Your task to perform on an android device: open app "Spotify: Music and Podcasts" (install if not already installed) and go to login screen Image 0: 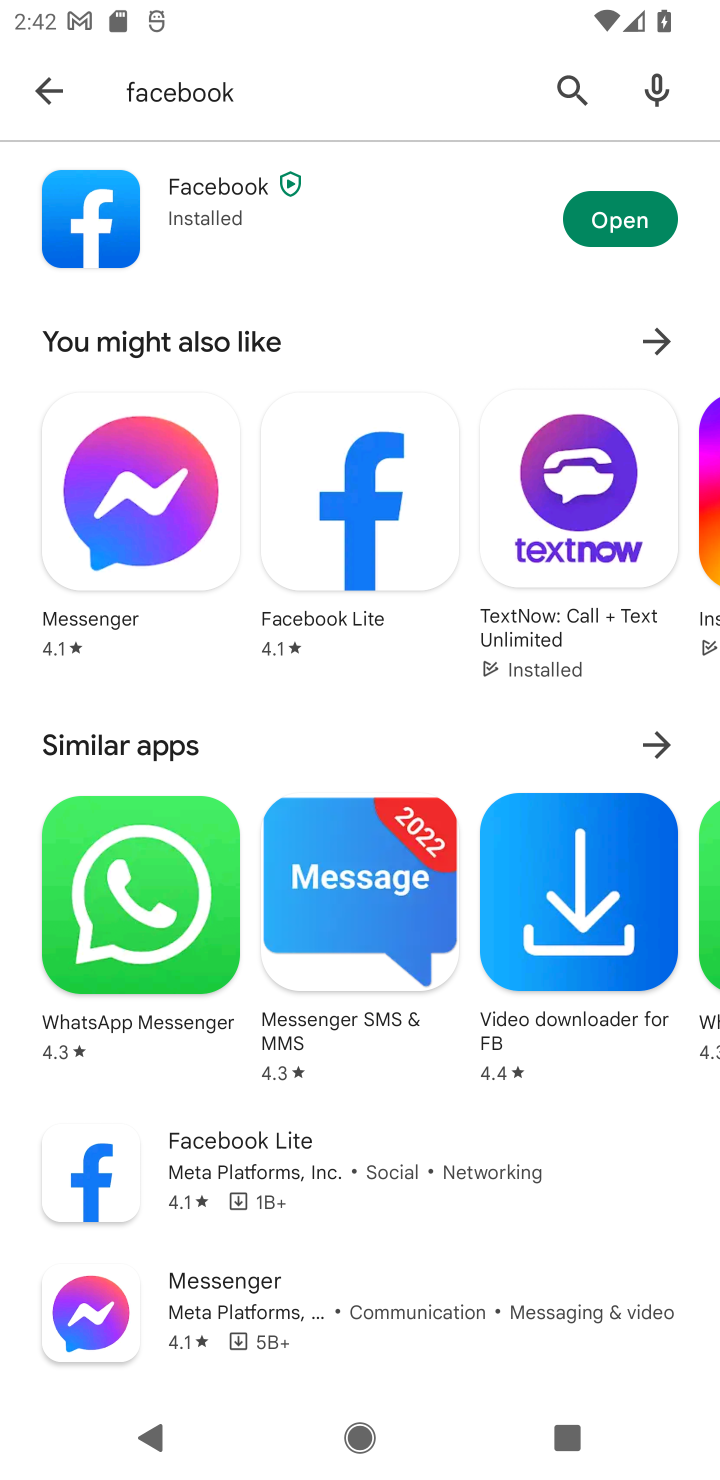
Step 0: press home button
Your task to perform on an android device: open app "Spotify: Music and Podcasts" (install if not already installed) and go to login screen Image 1: 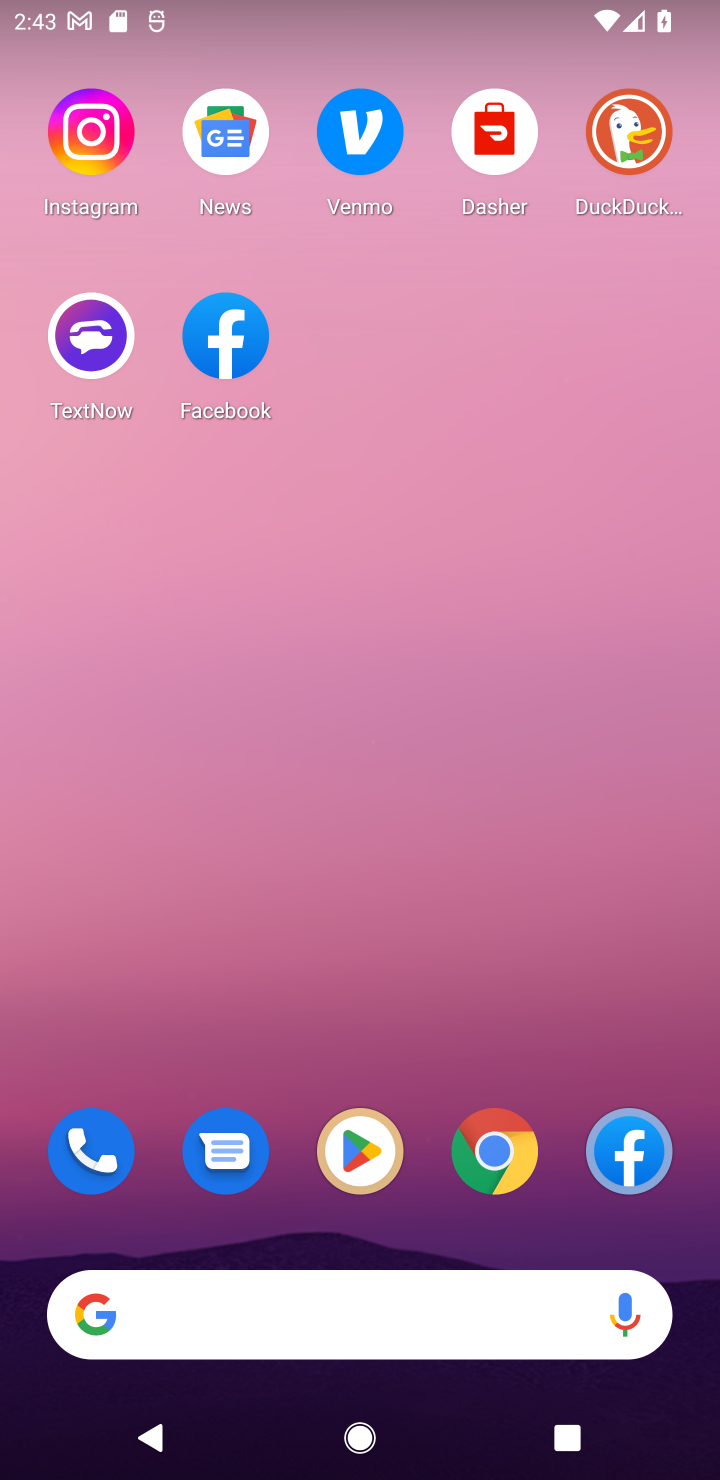
Step 1: click (356, 1156)
Your task to perform on an android device: open app "Spotify: Music and Podcasts" (install if not already installed) and go to login screen Image 2: 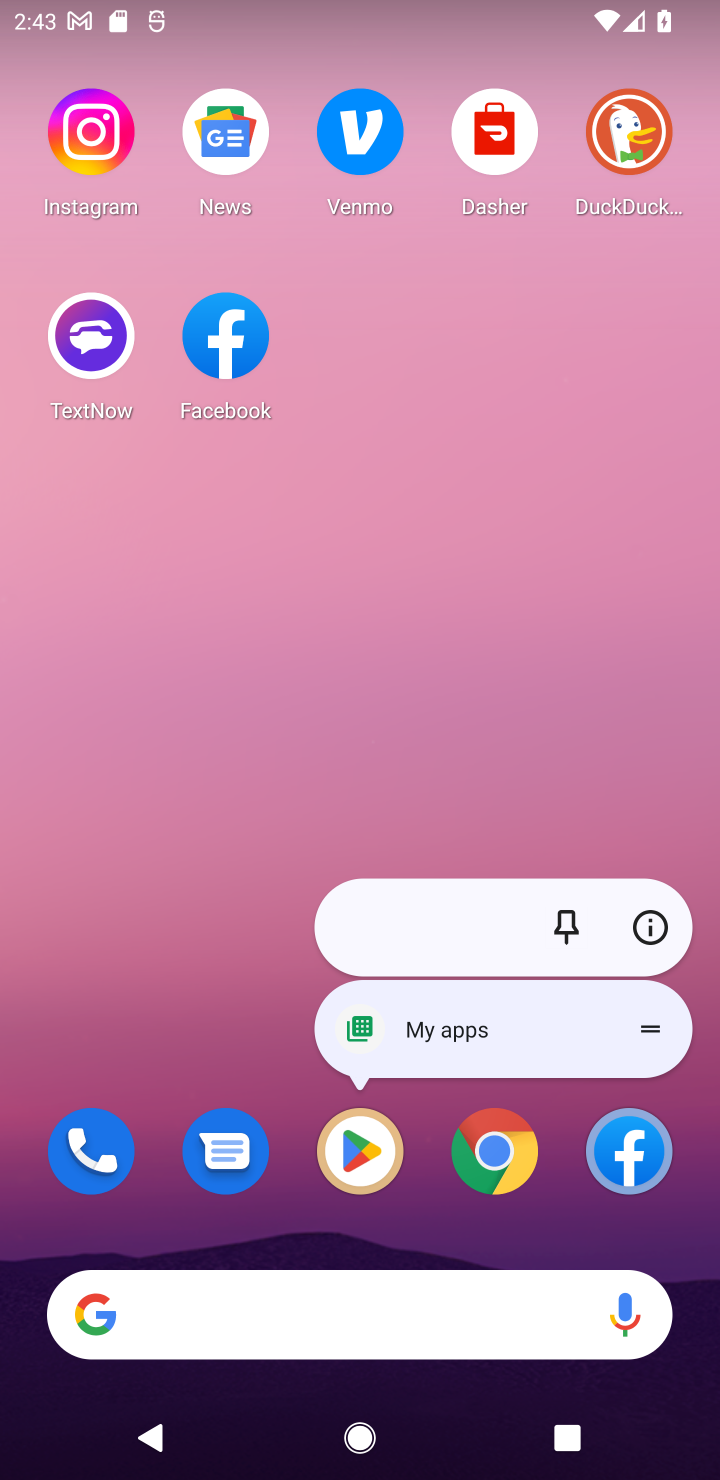
Step 2: click (356, 1151)
Your task to perform on an android device: open app "Spotify: Music and Podcasts" (install if not already installed) and go to login screen Image 3: 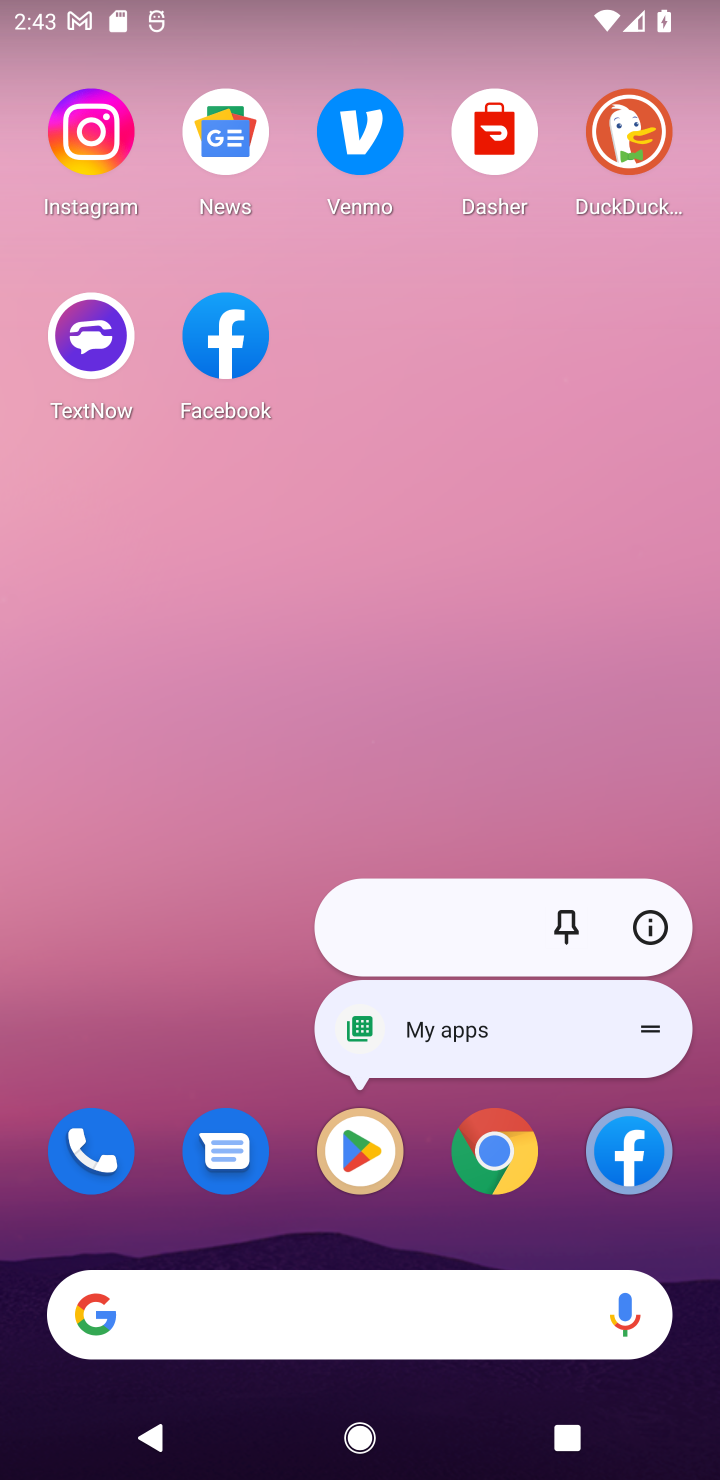
Step 3: click (356, 1164)
Your task to perform on an android device: open app "Spotify: Music and Podcasts" (install if not already installed) and go to login screen Image 4: 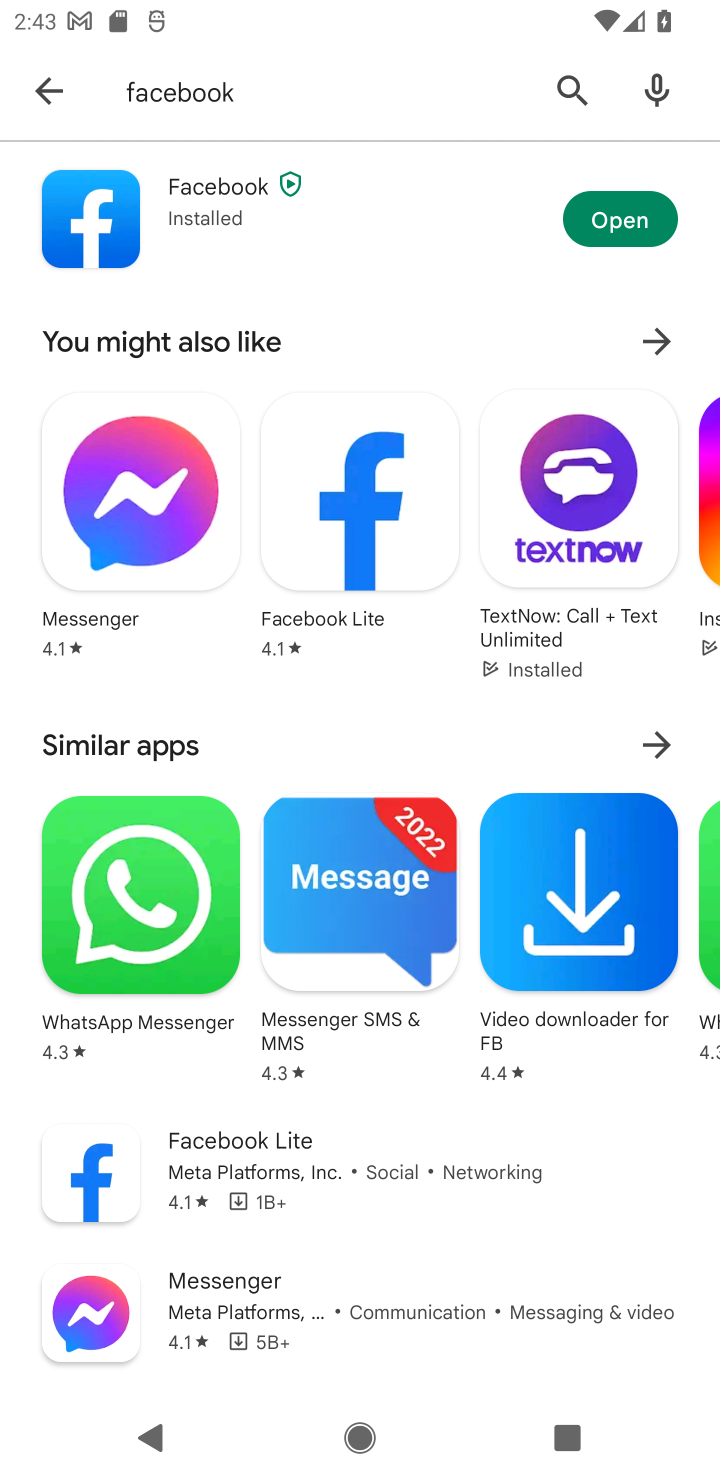
Step 4: click (573, 77)
Your task to perform on an android device: open app "Spotify: Music and Podcasts" (install if not already installed) and go to login screen Image 5: 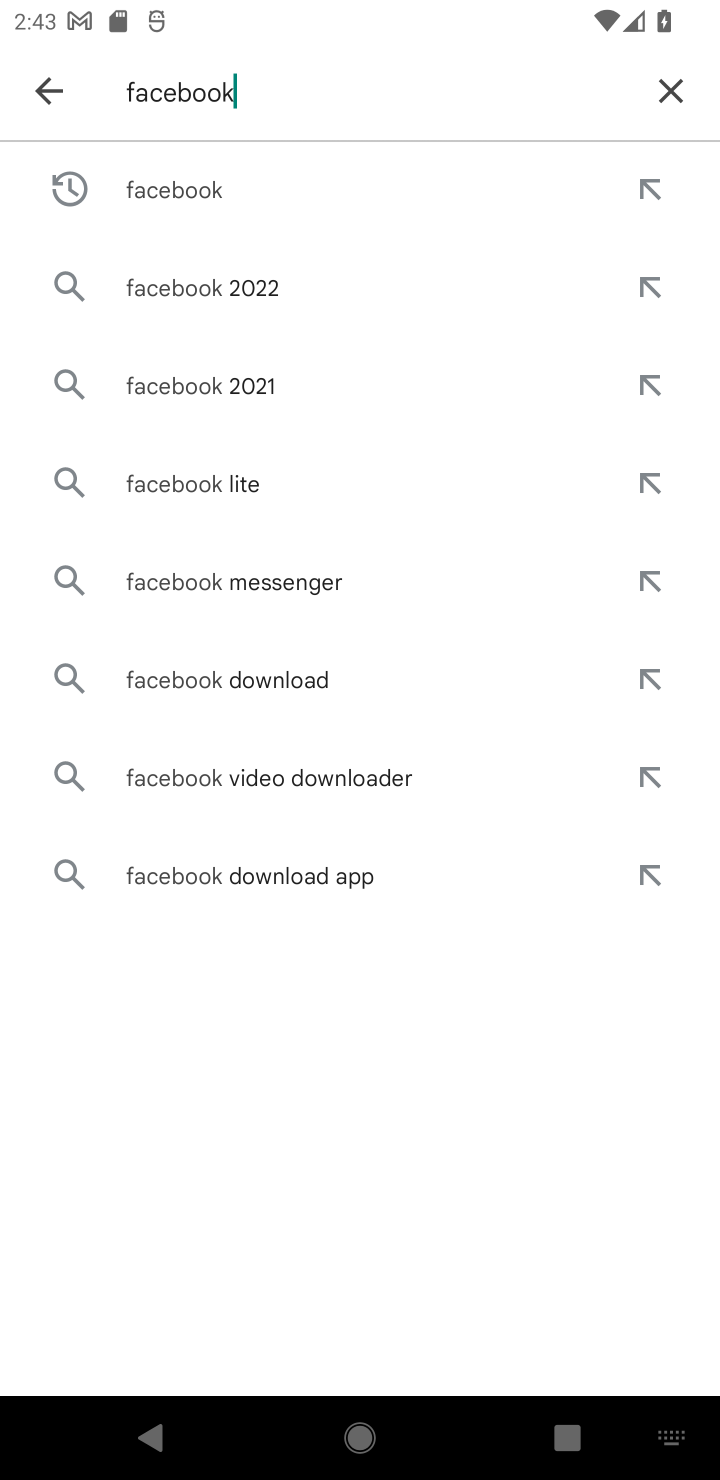
Step 5: click (660, 85)
Your task to perform on an android device: open app "Spotify: Music and Podcasts" (install if not already installed) and go to login screen Image 6: 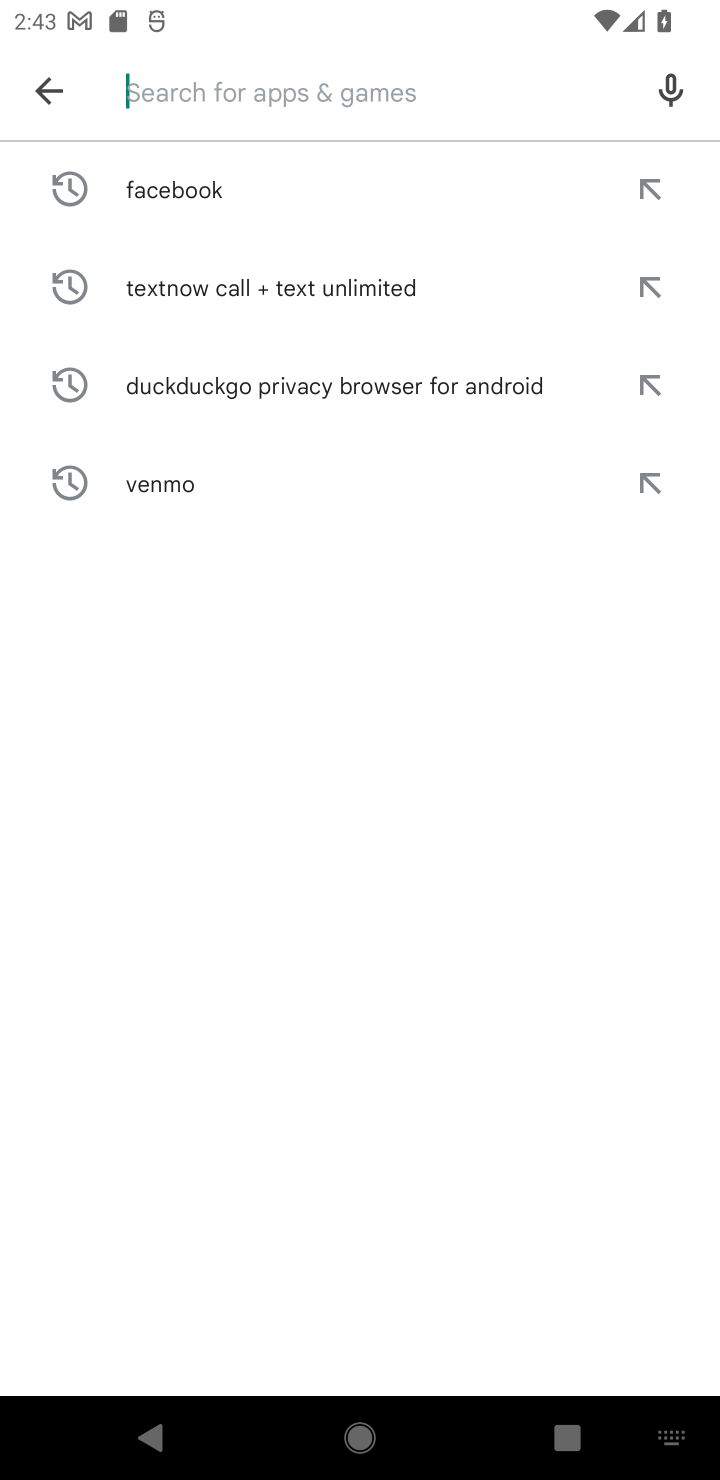
Step 6: type "Spotify: Music and Podcasts"
Your task to perform on an android device: open app "Spotify: Music and Podcasts" (install if not already installed) and go to login screen Image 7: 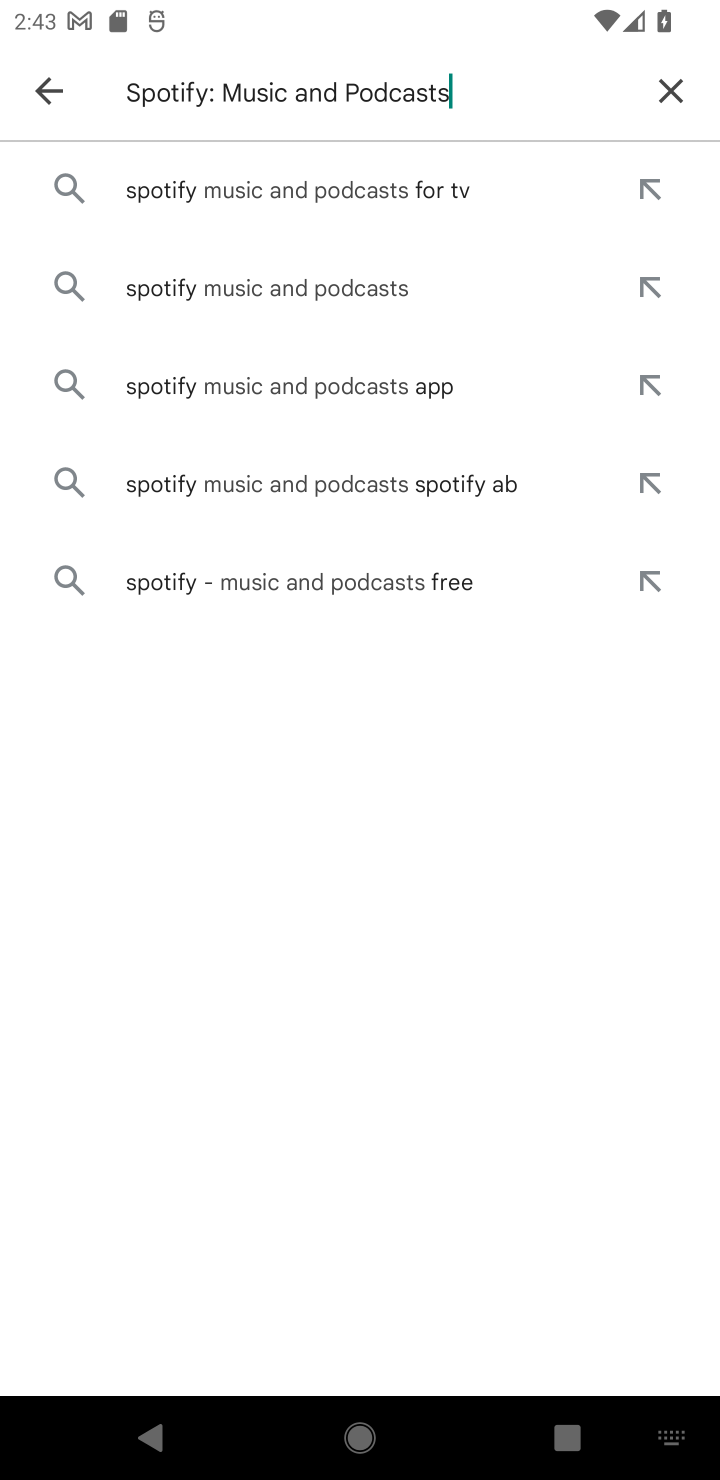
Step 7: click (337, 191)
Your task to perform on an android device: open app "Spotify: Music and Podcasts" (install if not already installed) and go to login screen Image 8: 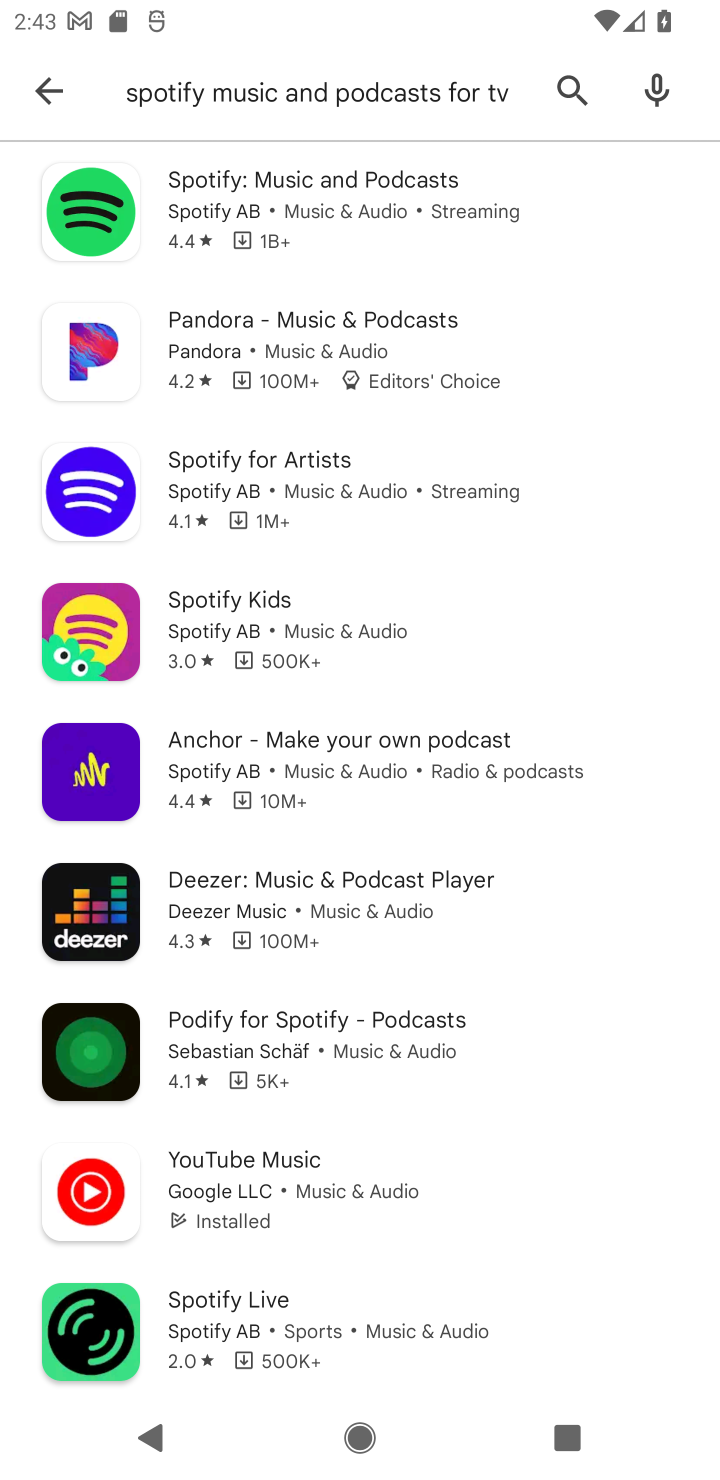
Step 8: click (327, 233)
Your task to perform on an android device: open app "Spotify: Music and Podcasts" (install if not already installed) and go to login screen Image 9: 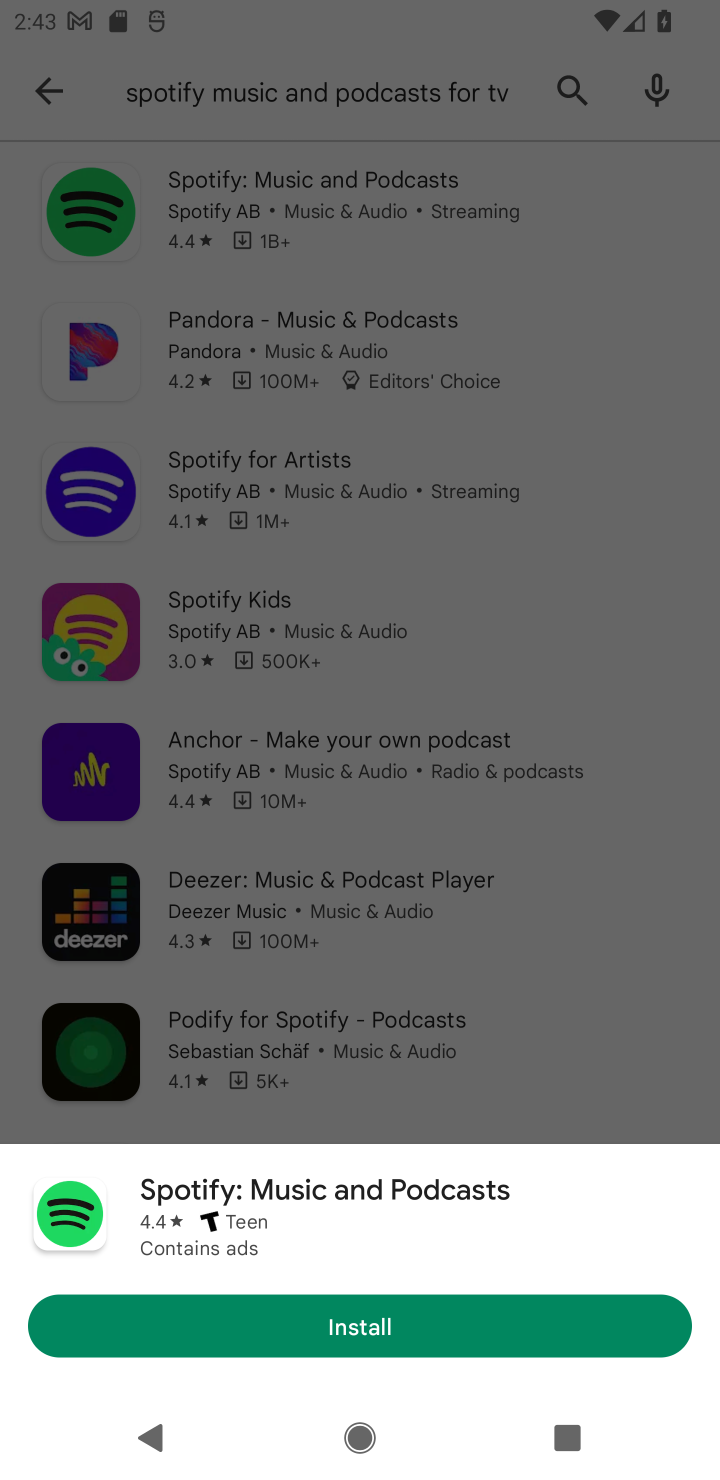
Step 9: click (350, 1323)
Your task to perform on an android device: open app "Spotify: Music and Podcasts" (install if not already installed) and go to login screen Image 10: 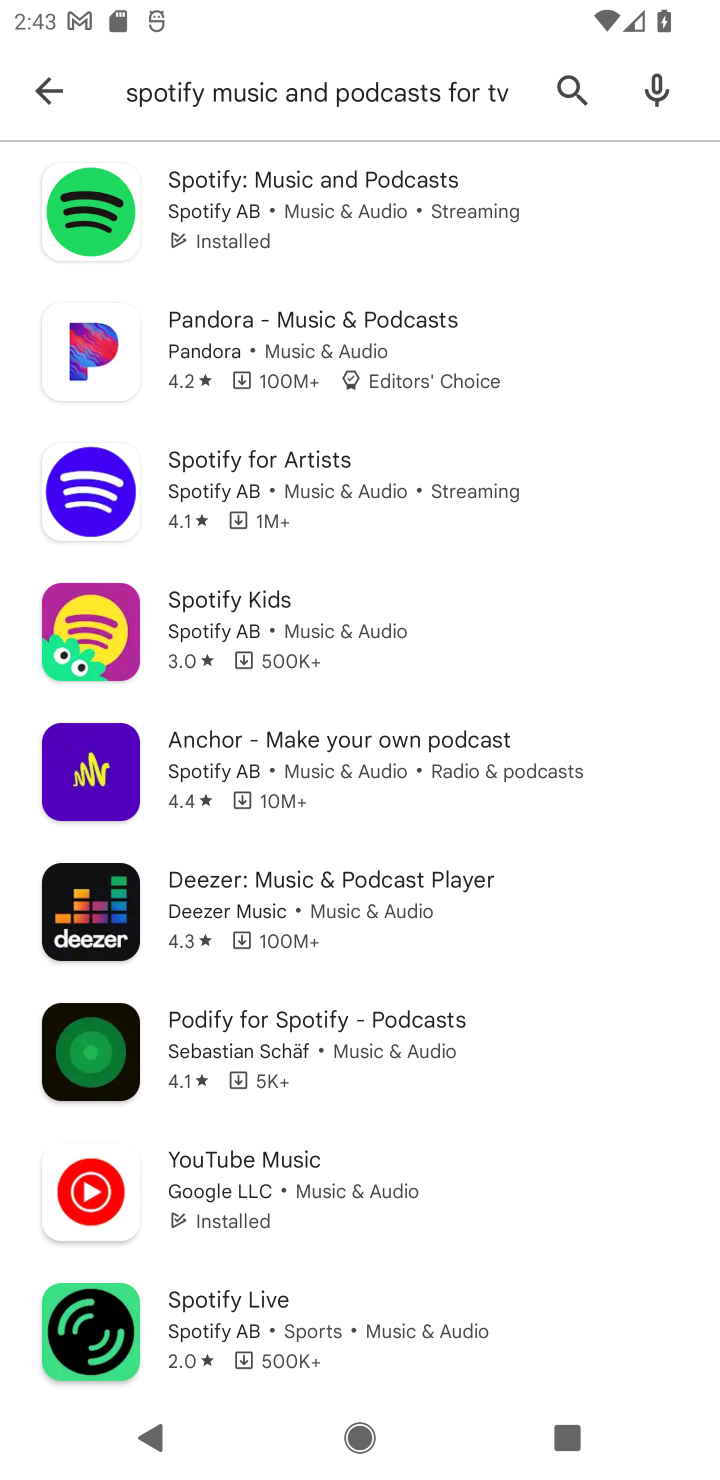
Step 10: click (237, 231)
Your task to perform on an android device: open app "Spotify: Music and Podcasts" (install if not already installed) and go to login screen Image 11: 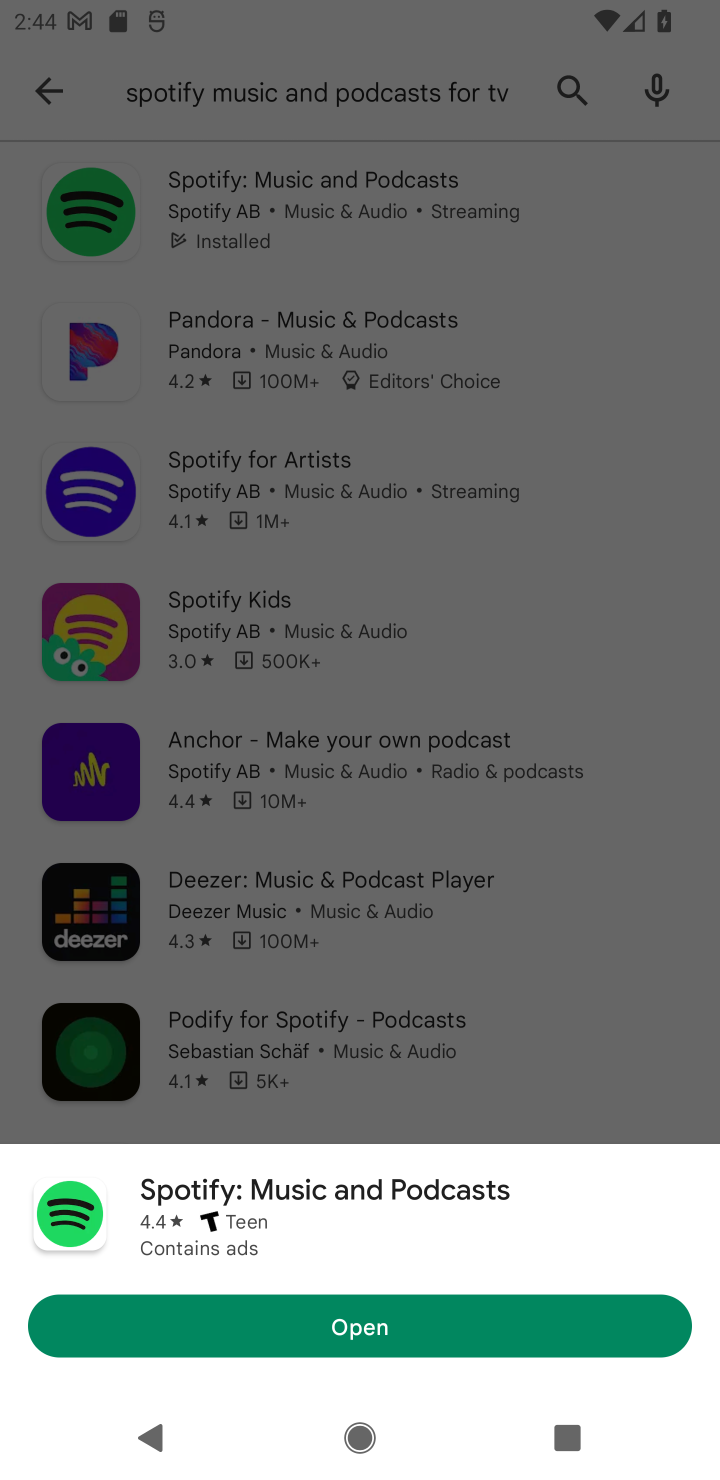
Step 11: click (358, 1324)
Your task to perform on an android device: open app "Spotify: Music and Podcasts" (install if not already installed) and go to login screen Image 12: 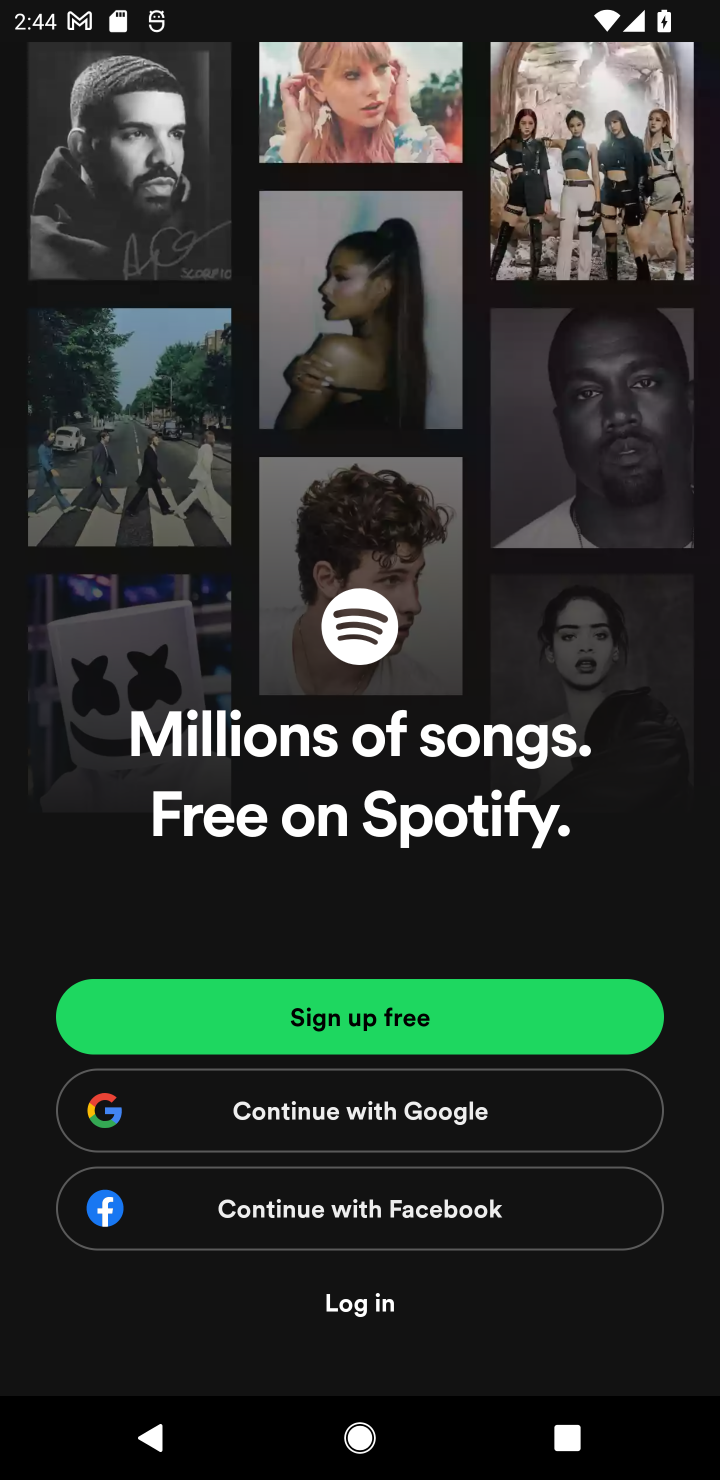
Step 12: task complete